Your task to perform on an android device: Go to notification settings Image 0: 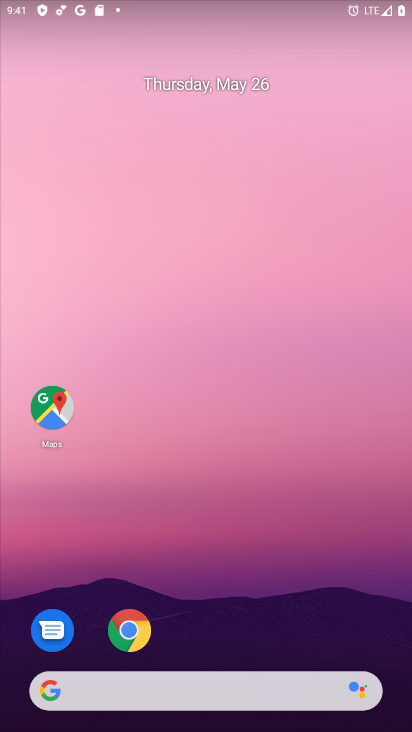
Step 0: drag from (229, 661) to (213, 83)
Your task to perform on an android device: Go to notification settings Image 1: 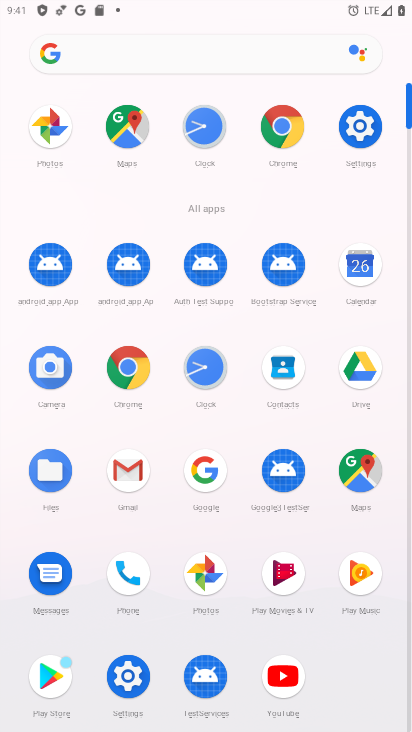
Step 1: click (373, 146)
Your task to perform on an android device: Go to notification settings Image 2: 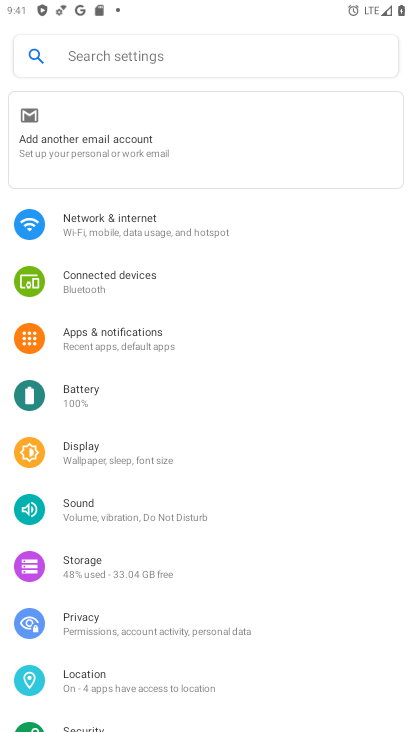
Step 2: click (160, 343)
Your task to perform on an android device: Go to notification settings Image 3: 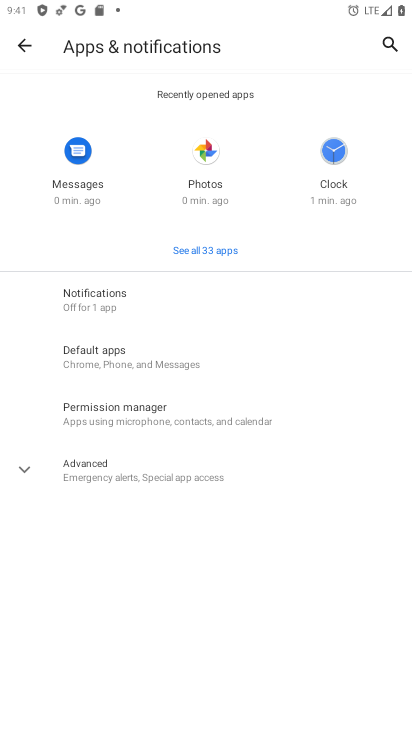
Step 3: click (127, 306)
Your task to perform on an android device: Go to notification settings Image 4: 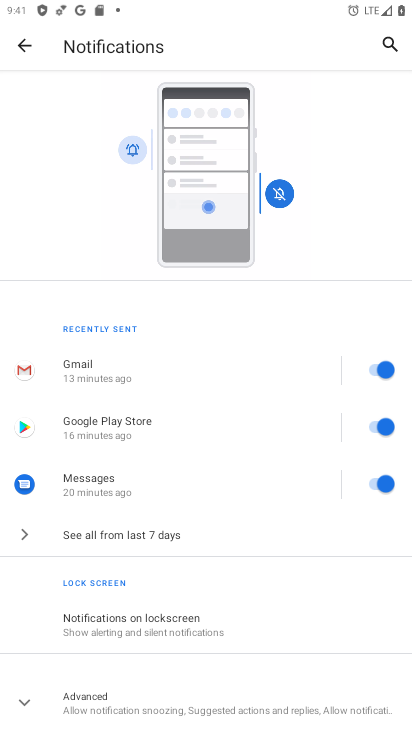
Step 4: task complete